Your task to perform on an android device: Turn on the flashlight Image 0: 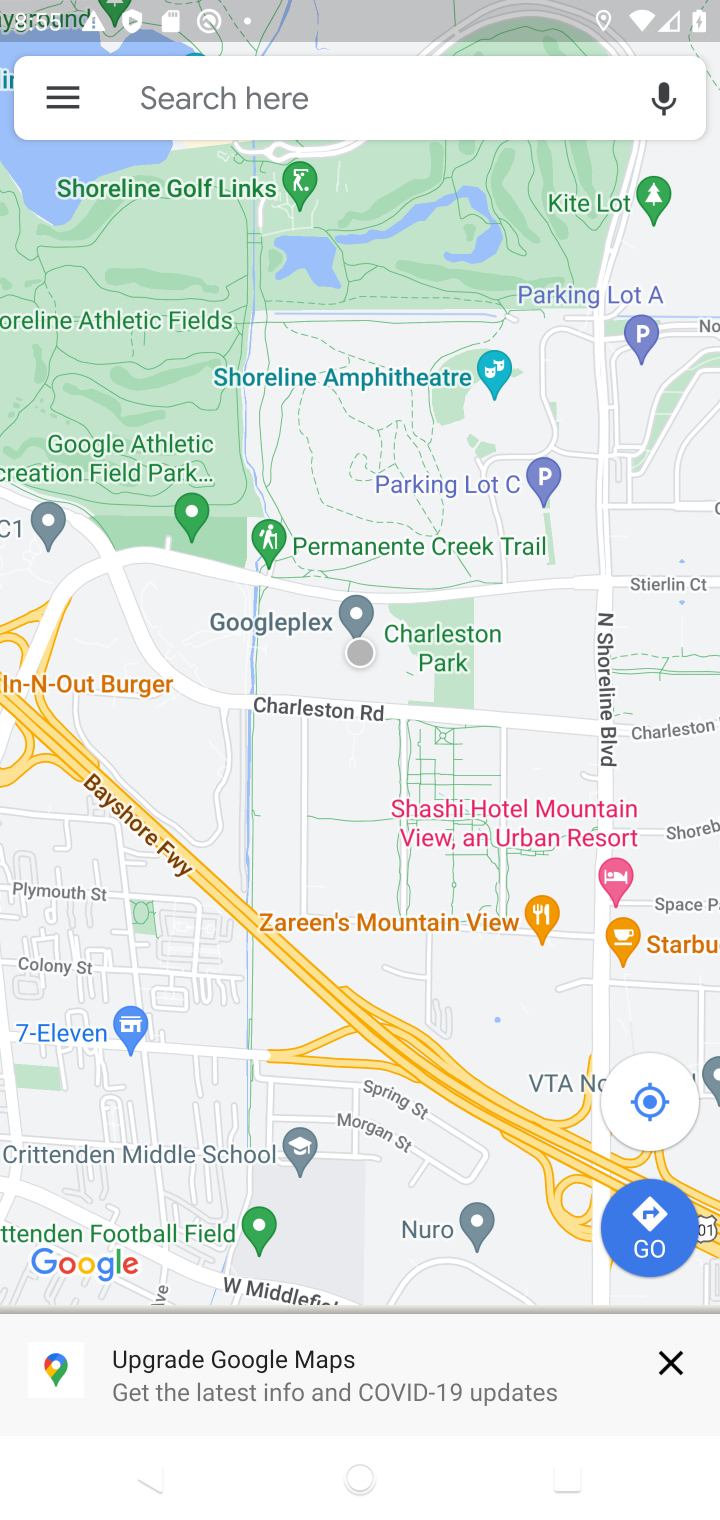
Step 0: press home button
Your task to perform on an android device: Turn on the flashlight Image 1: 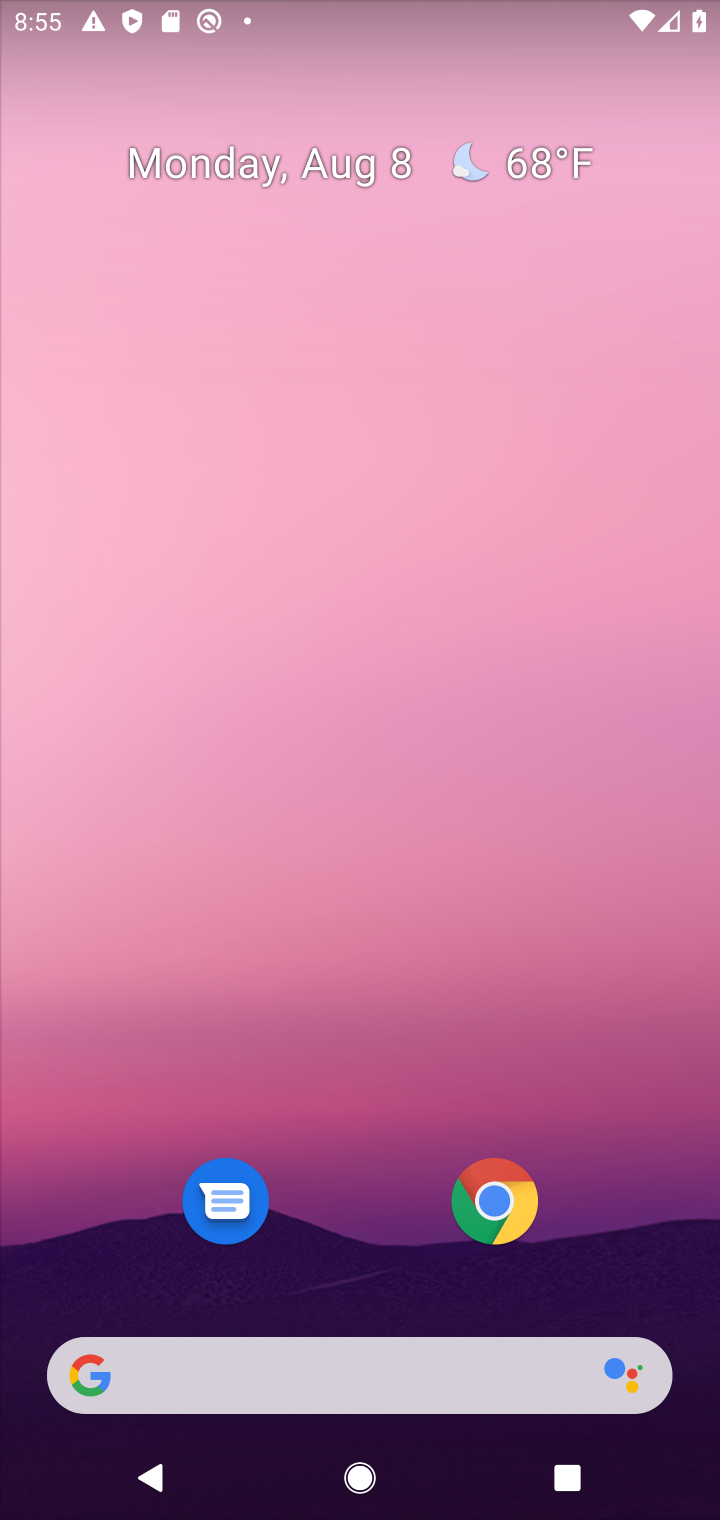
Step 1: drag from (412, 8) to (480, 806)
Your task to perform on an android device: Turn on the flashlight Image 2: 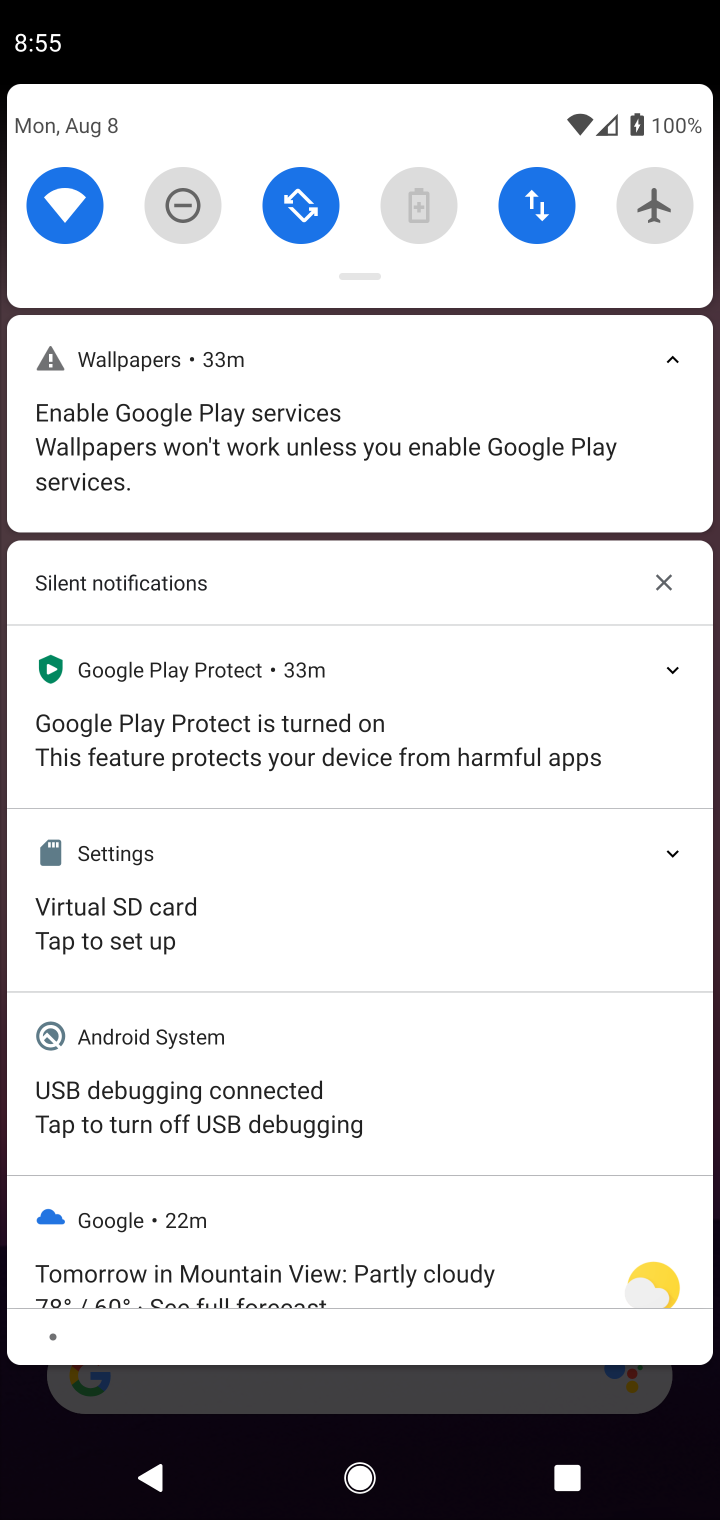
Step 2: drag from (357, 95) to (404, 791)
Your task to perform on an android device: Turn on the flashlight Image 3: 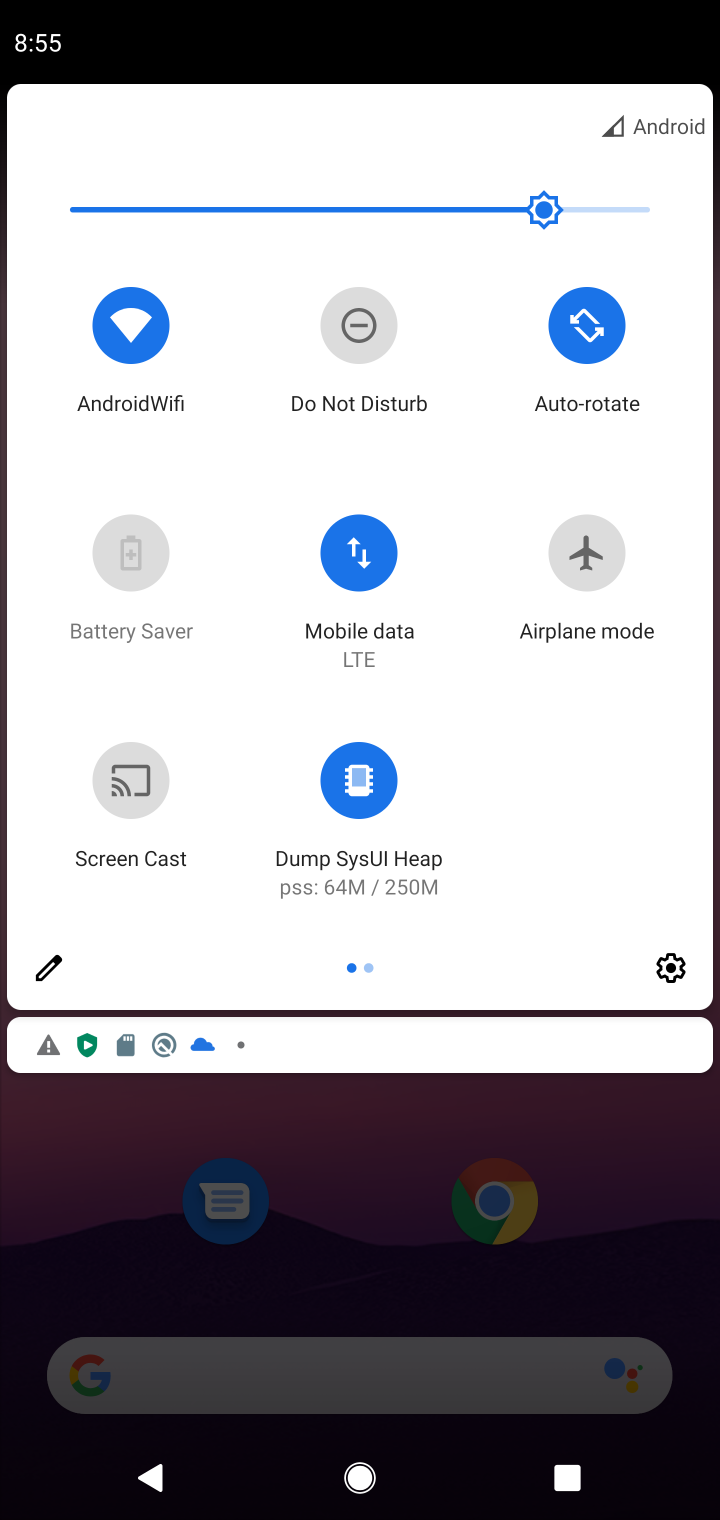
Step 3: click (58, 849)
Your task to perform on an android device: Turn on the flashlight Image 4: 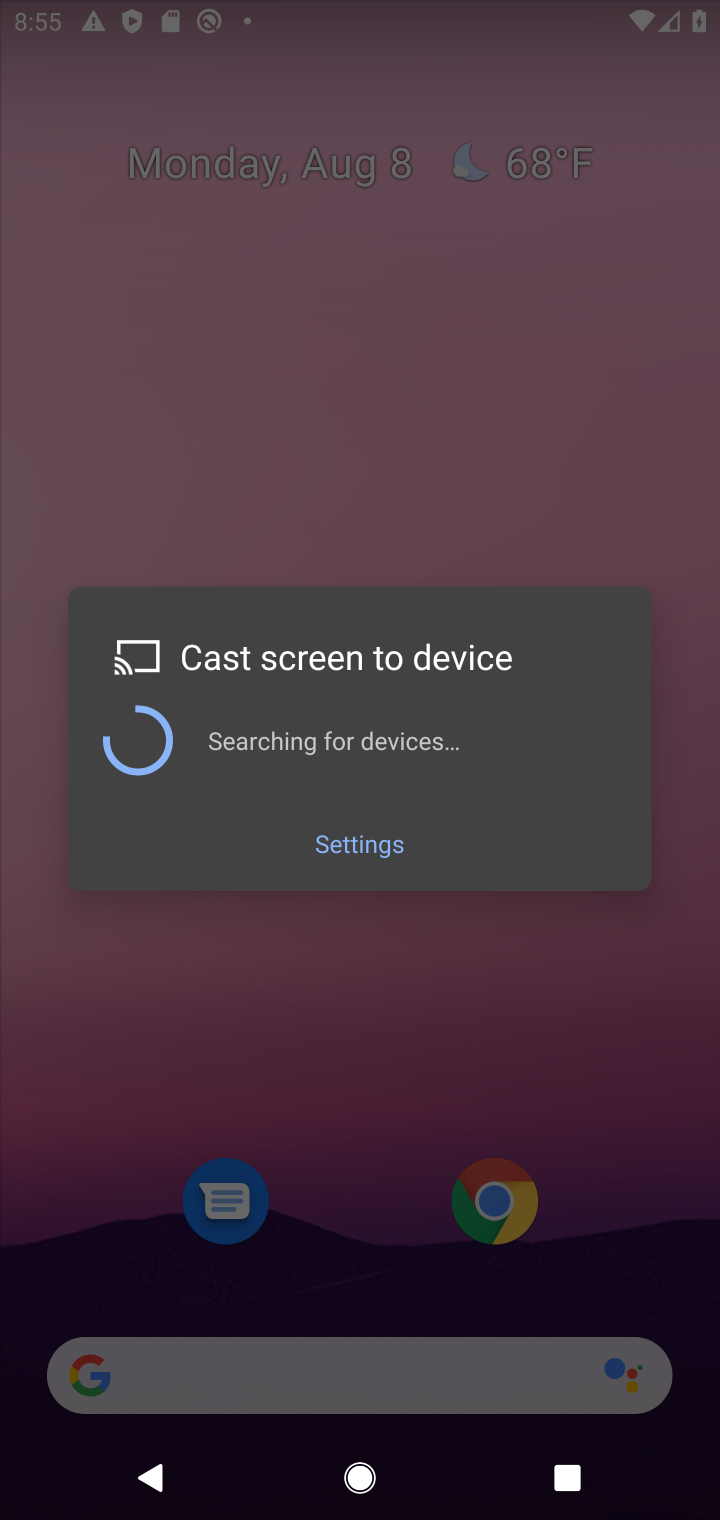
Step 4: press back button
Your task to perform on an android device: Turn on the flashlight Image 5: 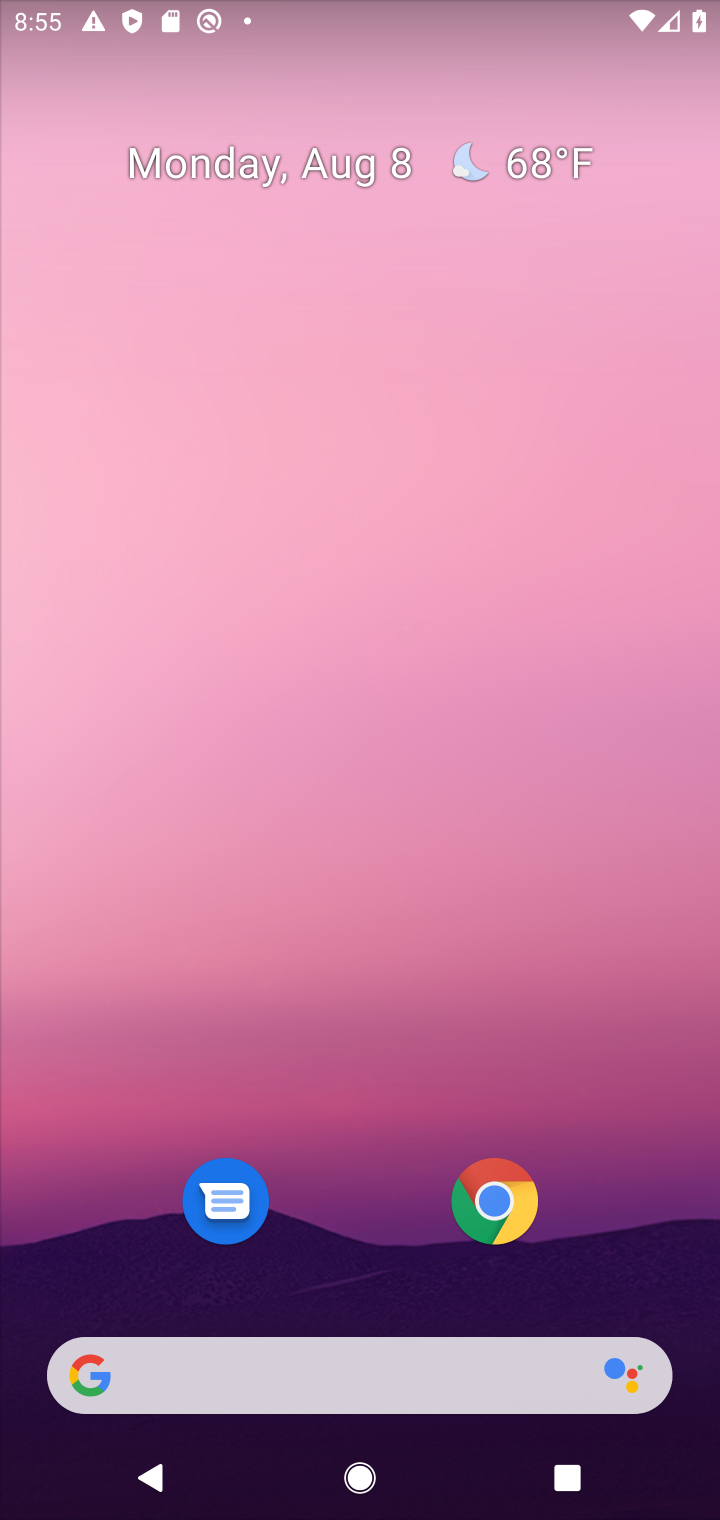
Step 5: drag from (439, 4) to (460, 819)
Your task to perform on an android device: Turn on the flashlight Image 6: 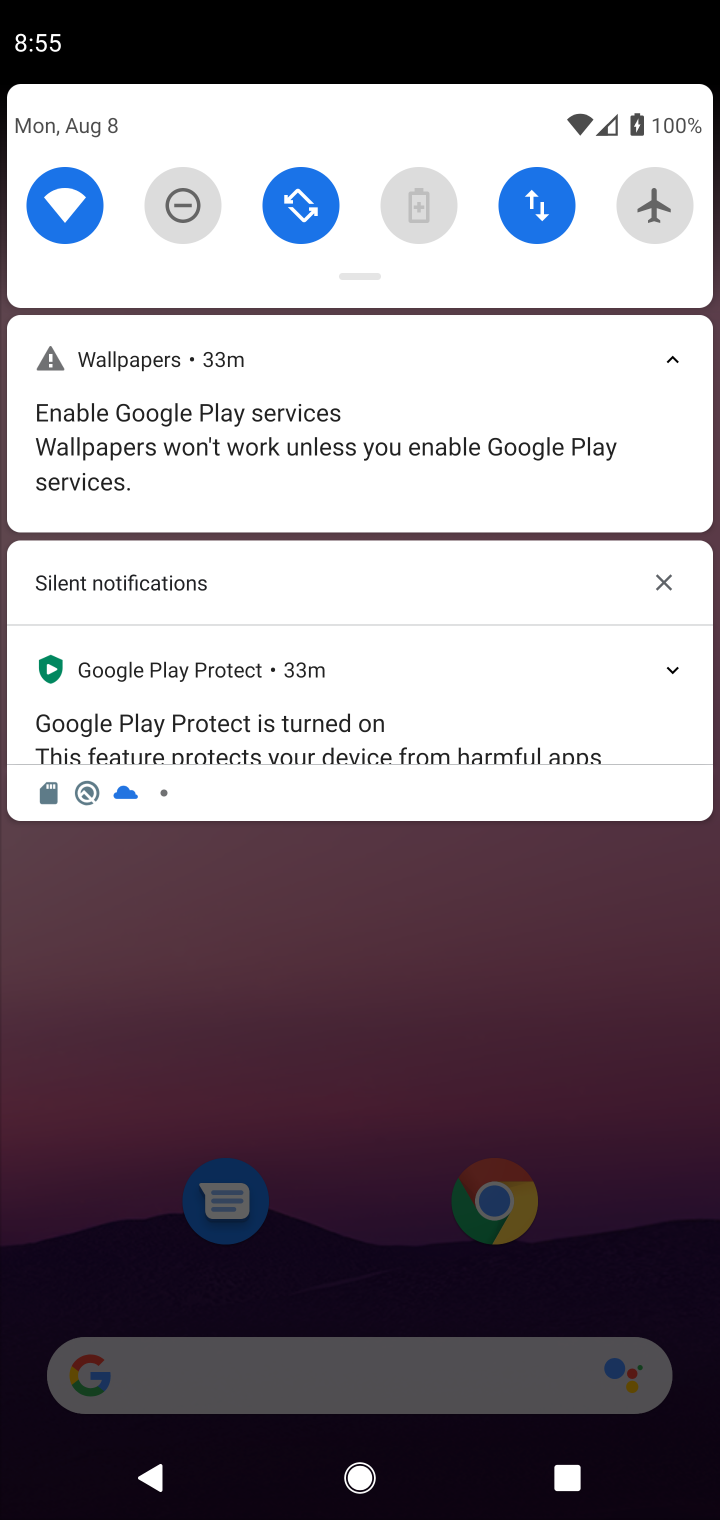
Step 6: drag from (344, 97) to (428, 750)
Your task to perform on an android device: Turn on the flashlight Image 7: 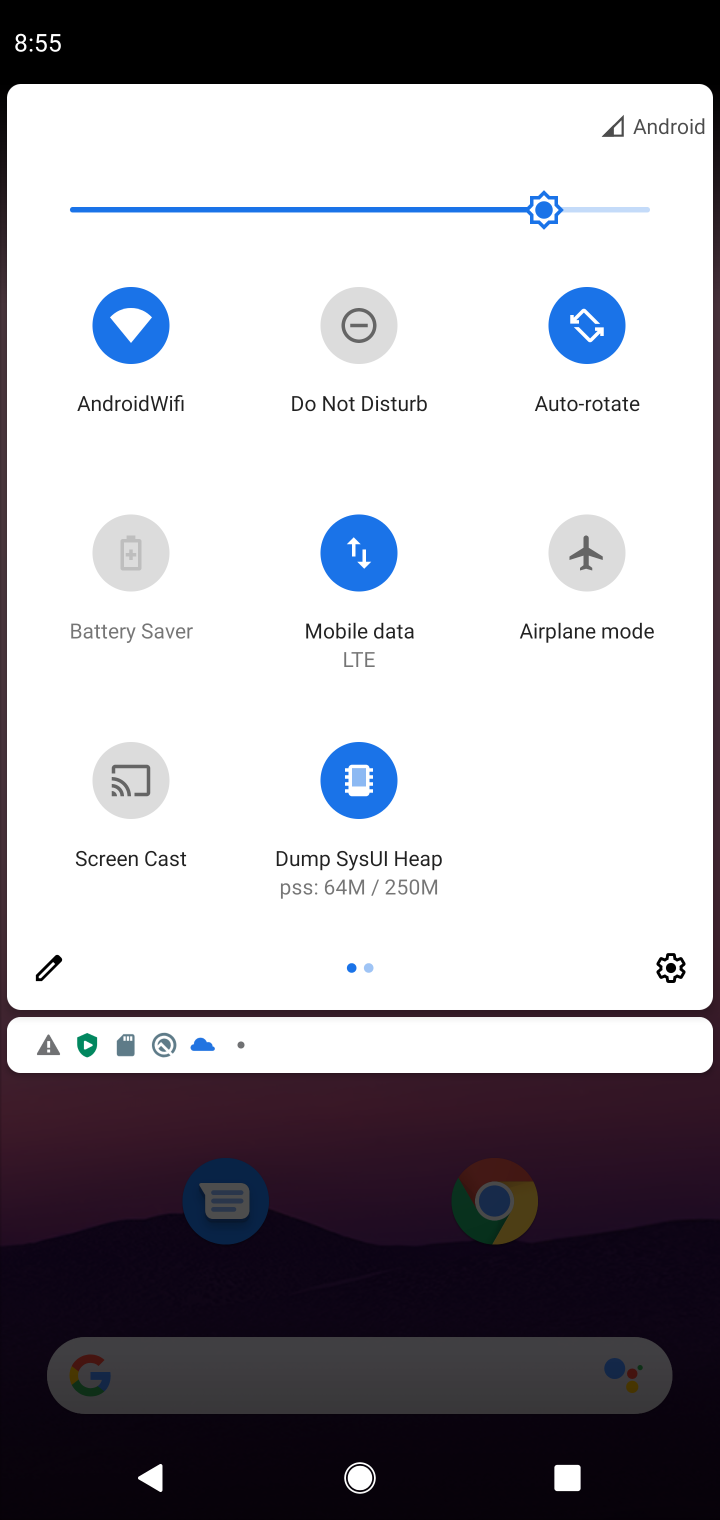
Step 7: click (49, 961)
Your task to perform on an android device: Turn on the flashlight Image 8: 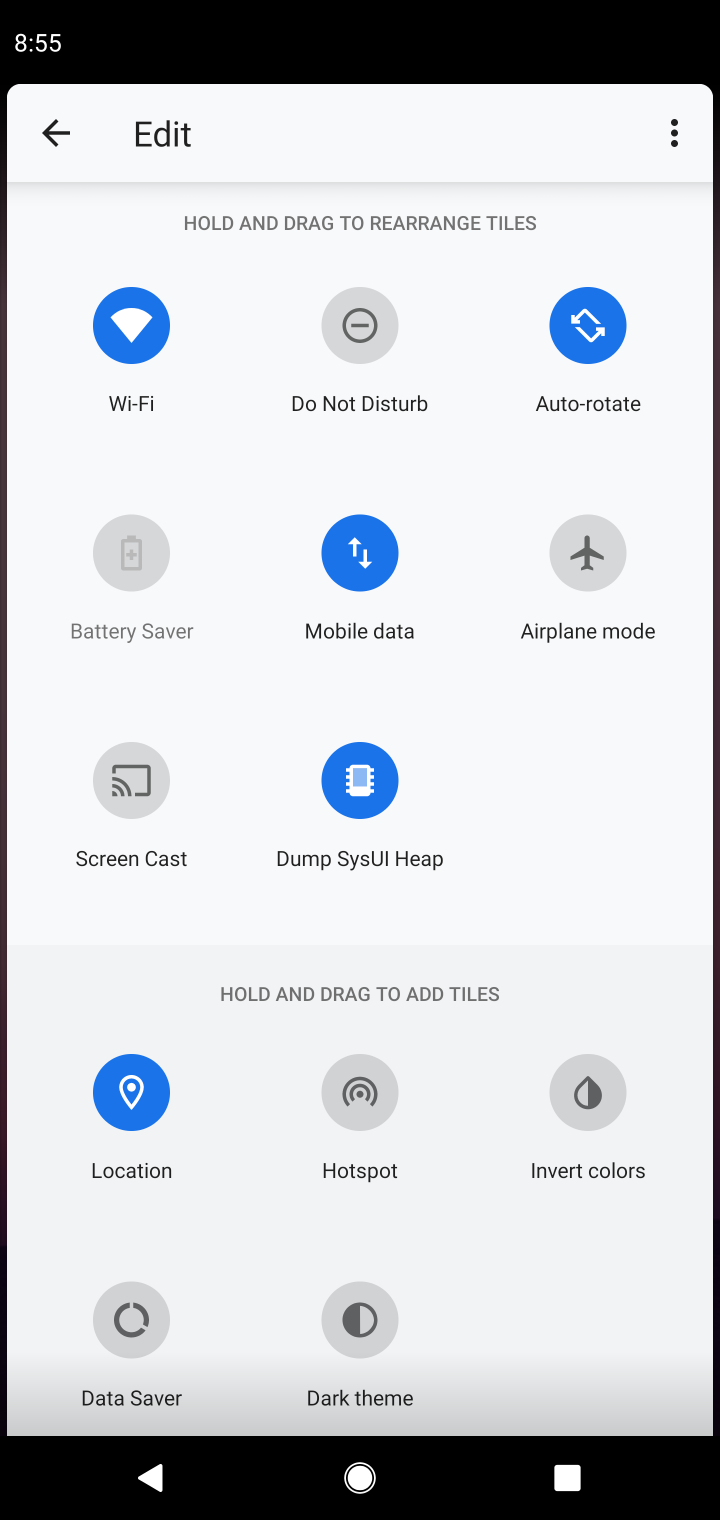
Step 8: task complete